Your task to perform on an android device: turn on the 24-hour format for clock Image 0: 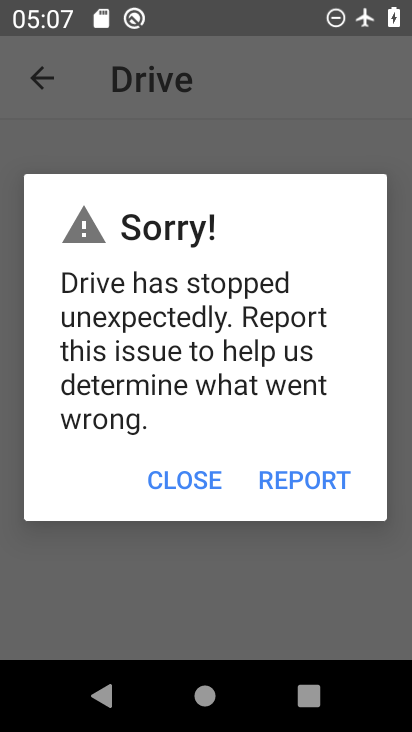
Step 0: press home button
Your task to perform on an android device: turn on the 24-hour format for clock Image 1: 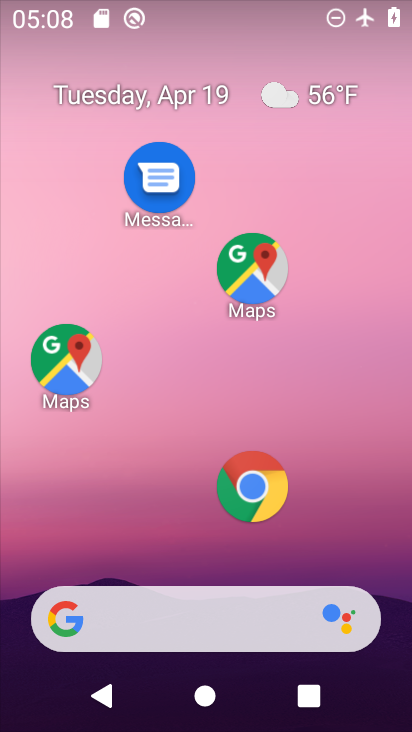
Step 1: drag from (284, 550) to (376, 164)
Your task to perform on an android device: turn on the 24-hour format for clock Image 2: 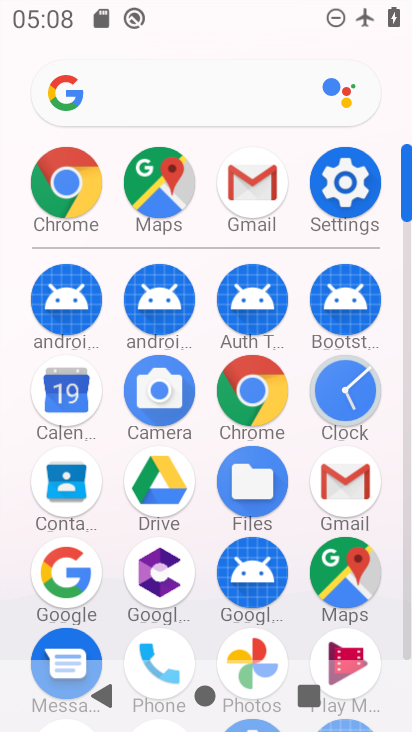
Step 2: click (340, 386)
Your task to perform on an android device: turn on the 24-hour format for clock Image 3: 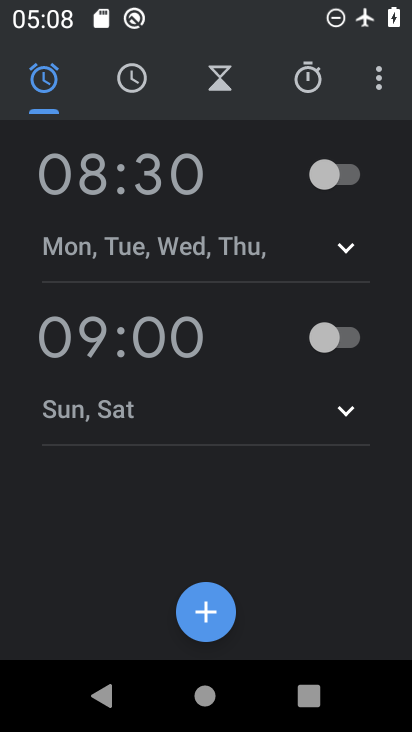
Step 3: click (387, 96)
Your task to perform on an android device: turn on the 24-hour format for clock Image 4: 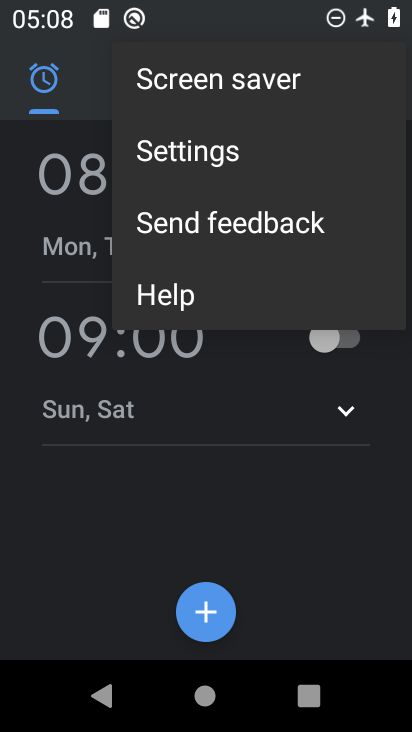
Step 4: click (262, 146)
Your task to perform on an android device: turn on the 24-hour format for clock Image 5: 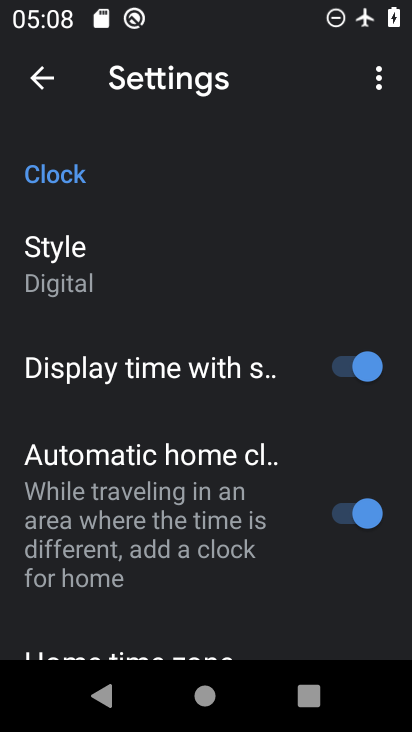
Step 5: drag from (180, 449) to (196, 182)
Your task to perform on an android device: turn on the 24-hour format for clock Image 6: 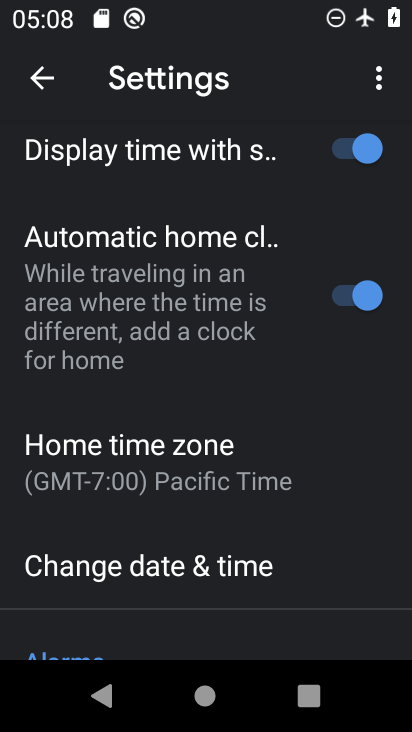
Step 6: click (206, 559)
Your task to perform on an android device: turn on the 24-hour format for clock Image 7: 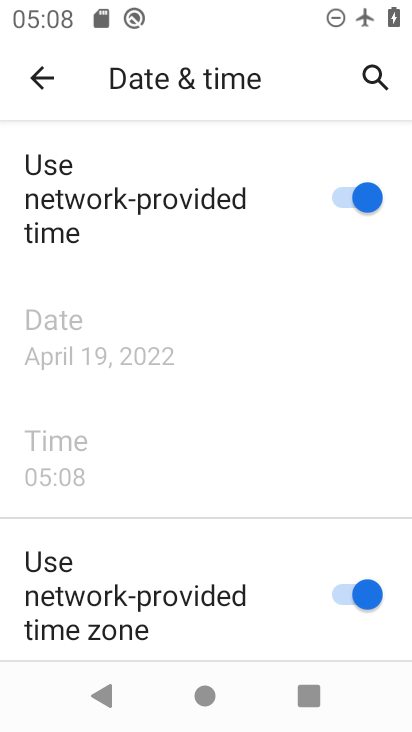
Step 7: task complete